Your task to perform on an android device: Search for Italian restaurants on Maps Image 0: 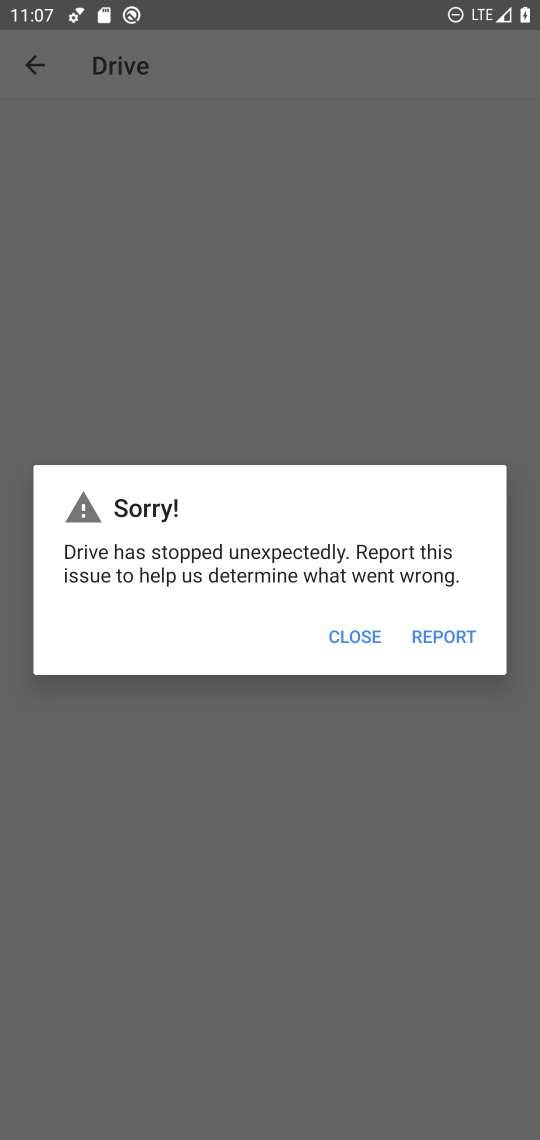
Step 0: press home button
Your task to perform on an android device: Search for Italian restaurants on Maps Image 1: 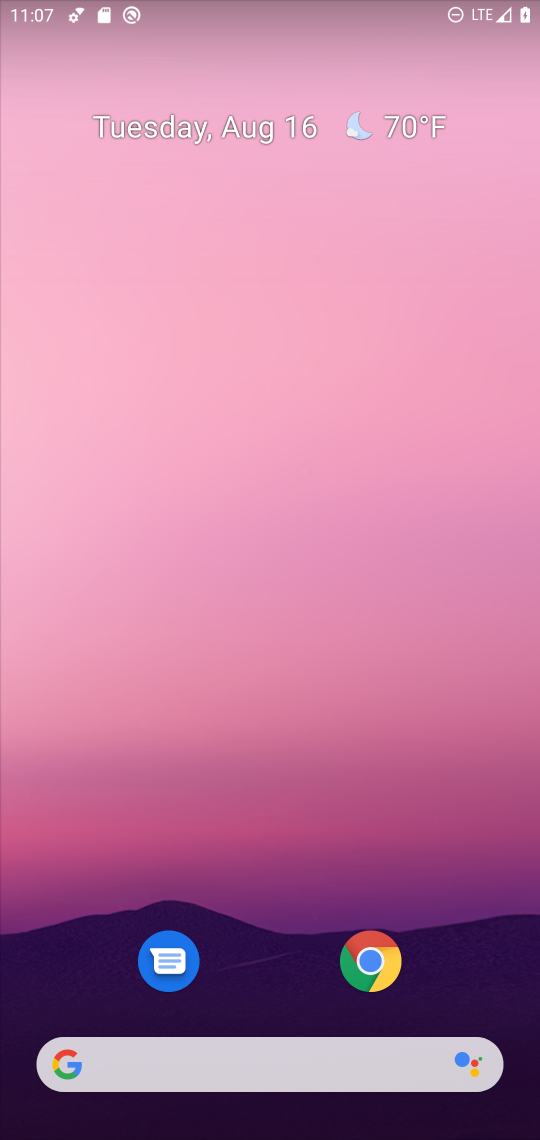
Step 1: drag from (259, 1014) to (53, 59)
Your task to perform on an android device: Search for Italian restaurants on Maps Image 2: 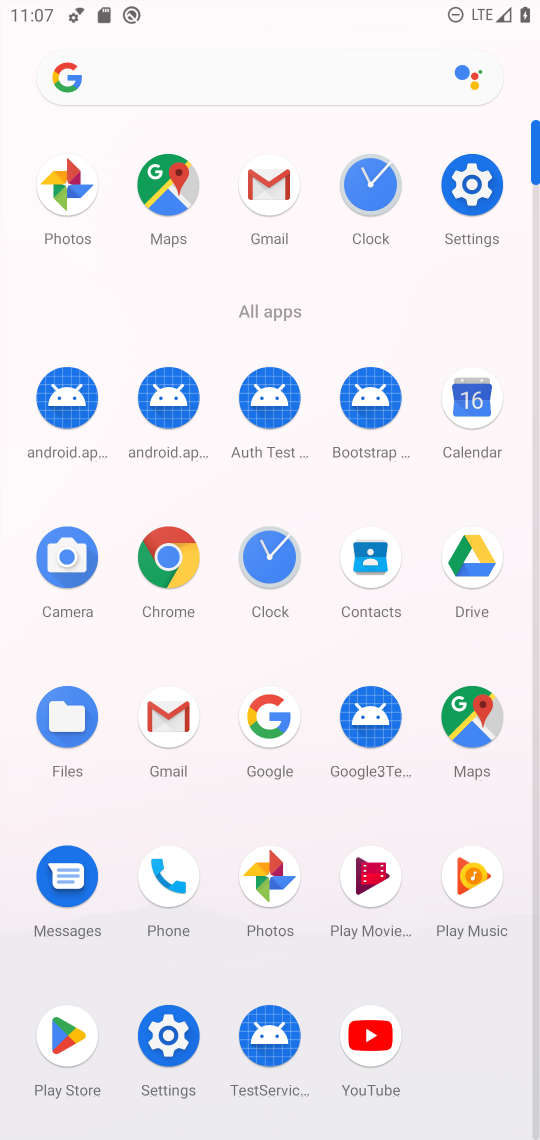
Step 2: click (464, 748)
Your task to perform on an android device: Search for Italian restaurants on Maps Image 3: 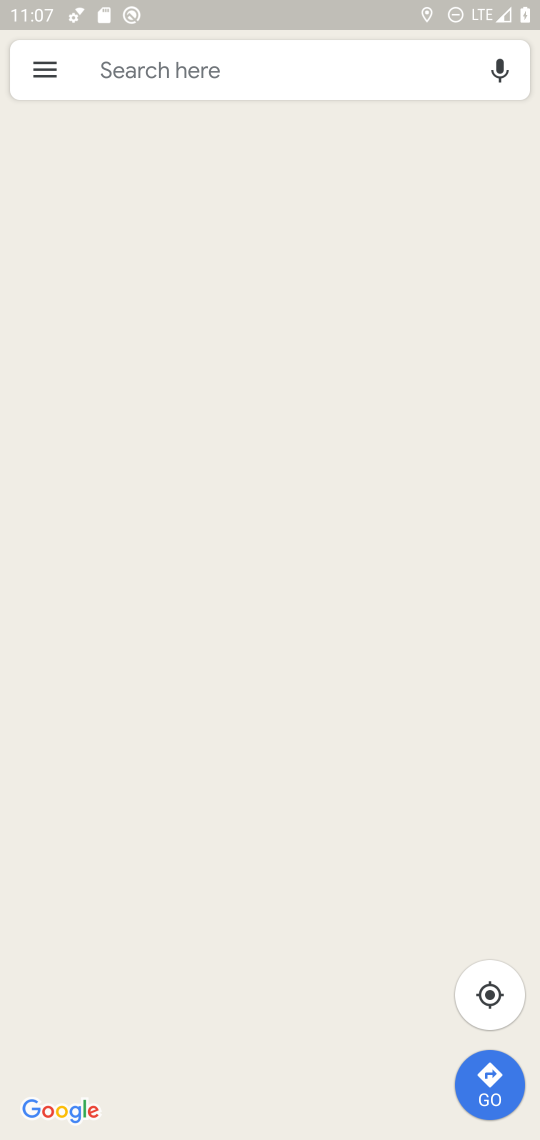
Step 3: click (197, 60)
Your task to perform on an android device: Search for Italian restaurants on Maps Image 4: 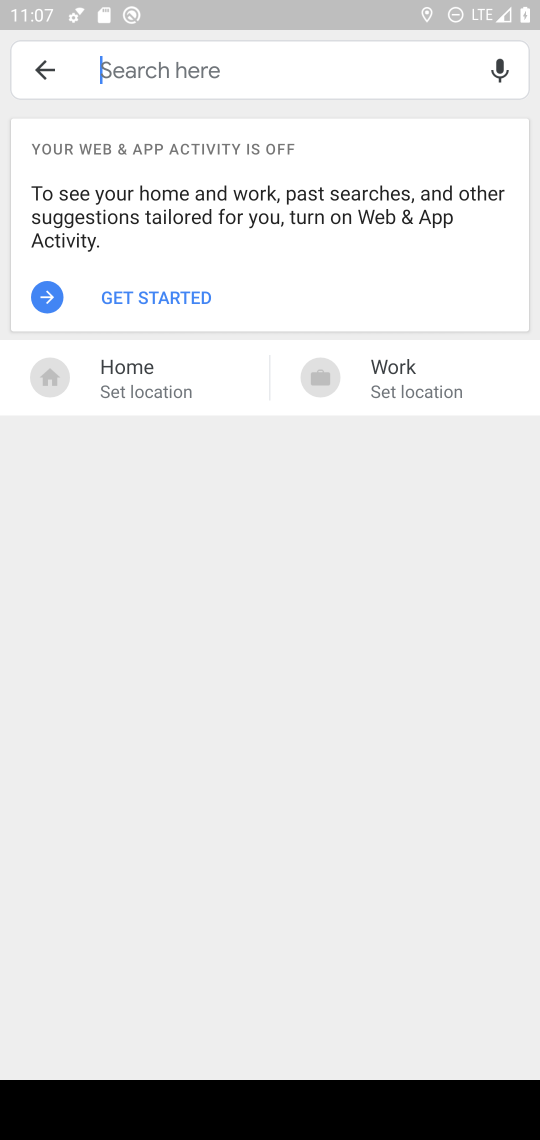
Step 4: click (95, 298)
Your task to perform on an android device: Search for Italian restaurants on Maps Image 5: 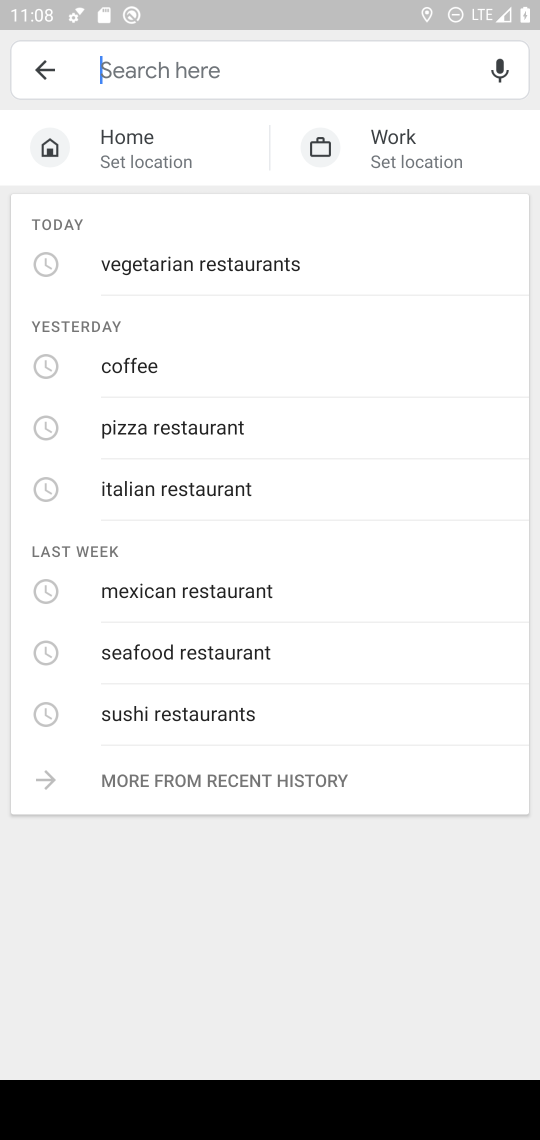
Step 5: click (127, 482)
Your task to perform on an android device: Search for Italian restaurants on Maps Image 6: 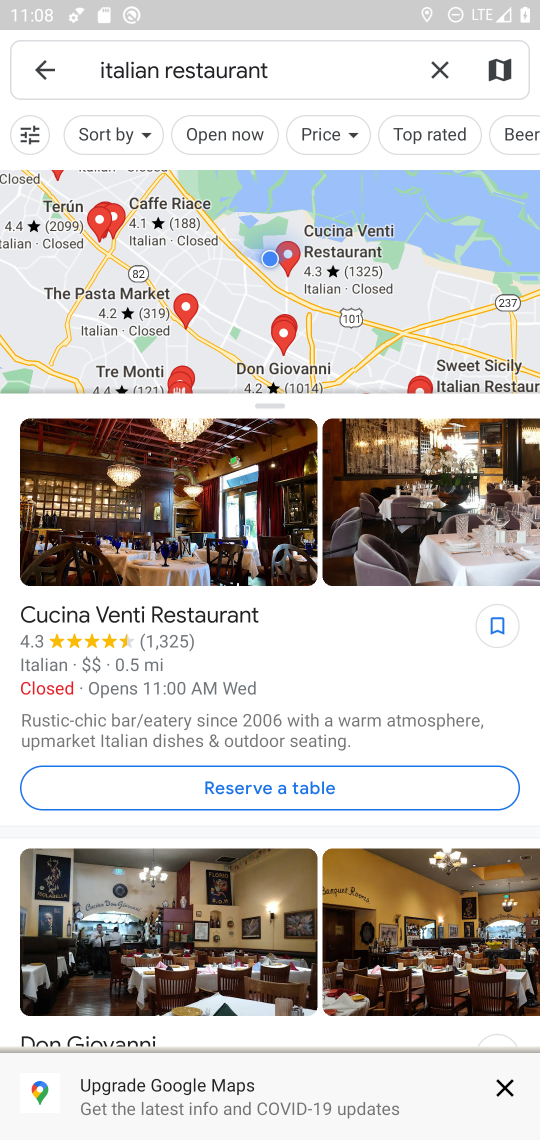
Step 6: task complete